Your task to perform on an android device: Open settings Image 0: 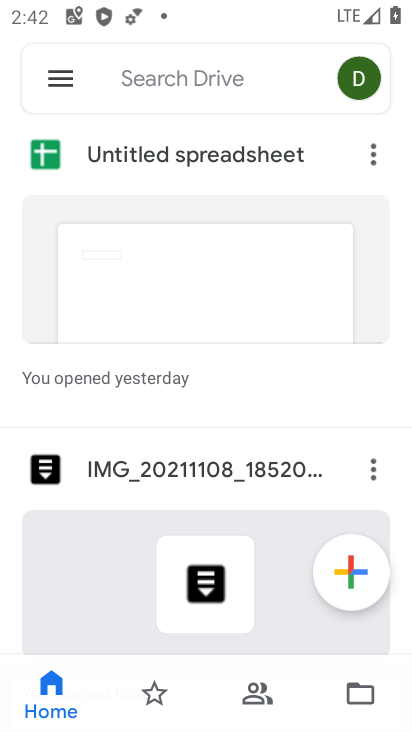
Step 0: press home button
Your task to perform on an android device: Open settings Image 1: 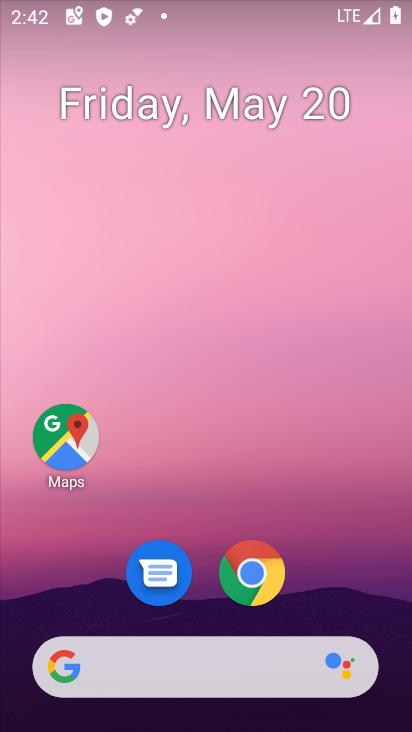
Step 1: drag from (375, 566) to (268, 116)
Your task to perform on an android device: Open settings Image 2: 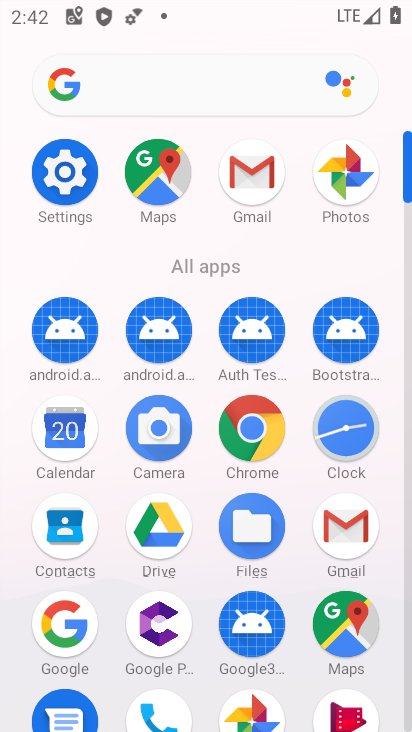
Step 2: click (84, 178)
Your task to perform on an android device: Open settings Image 3: 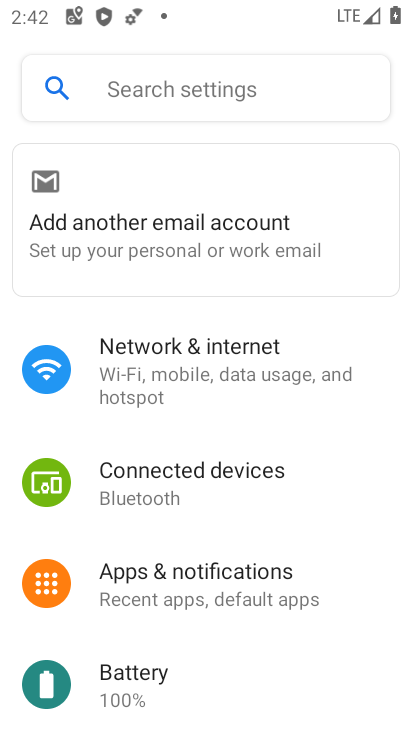
Step 3: task complete